Your task to perform on an android device: Open Wikipedia Image 0: 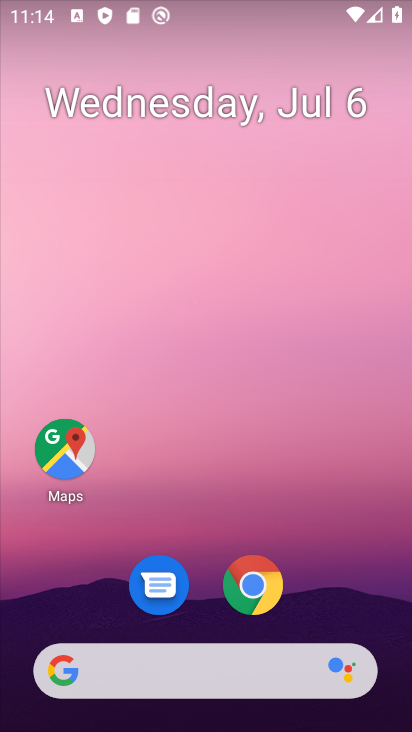
Step 0: click (260, 590)
Your task to perform on an android device: Open Wikipedia Image 1: 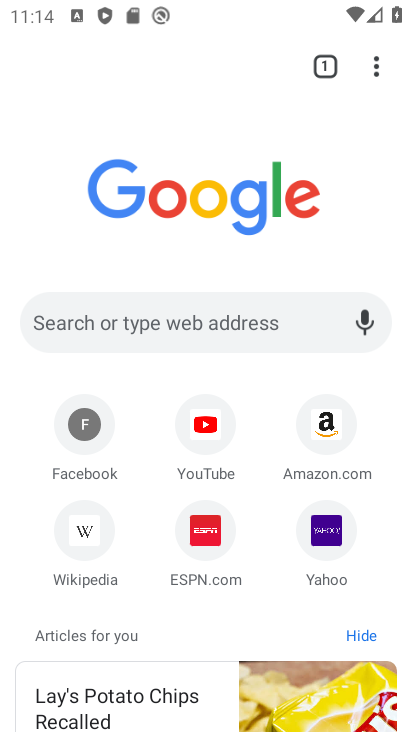
Step 1: click (89, 530)
Your task to perform on an android device: Open Wikipedia Image 2: 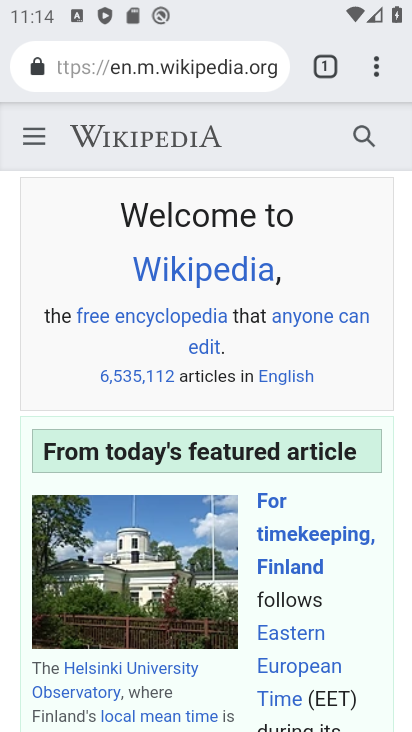
Step 2: task complete